Your task to perform on an android device: show emergency info Image 0: 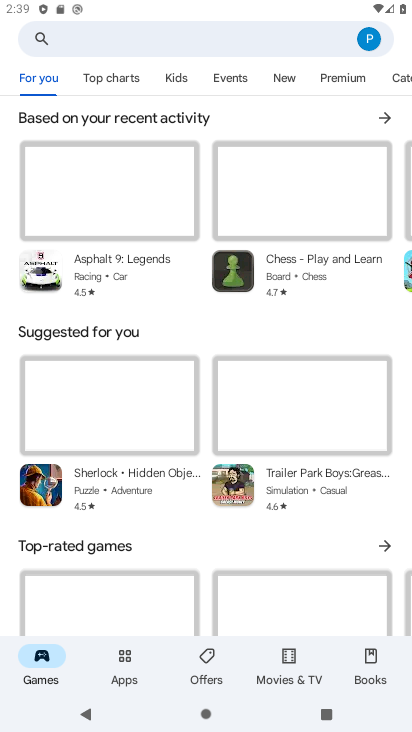
Step 0: press home button
Your task to perform on an android device: show emergency info Image 1: 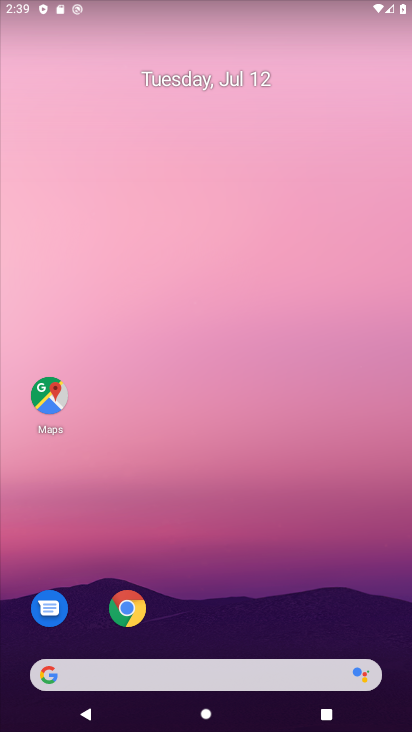
Step 1: drag from (275, 531) to (275, 14)
Your task to perform on an android device: show emergency info Image 2: 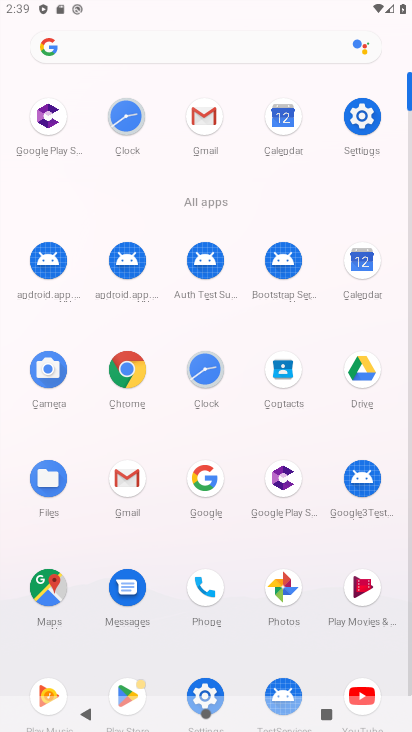
Step 2: click (366, 127)
Your task to perform on an android device: show emergency info Image 3: 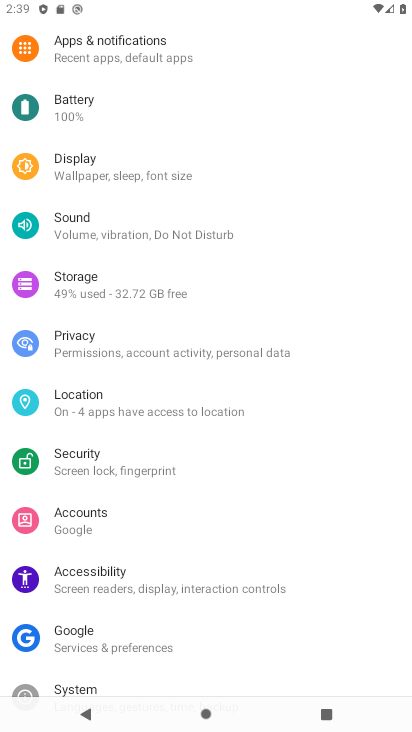
Step 3: drag from (171, 626) to (160, 246)
Your task to perform on an android device: show emergency info Image 4: 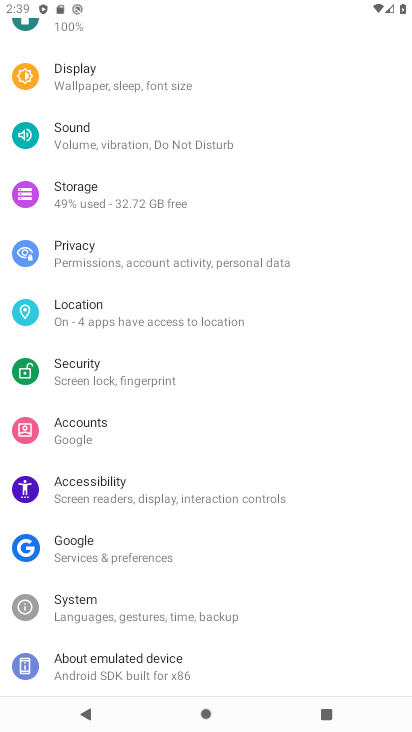
Step 4: click (162, 670)
Your task to perform on an android device: show emergency info Image 5: 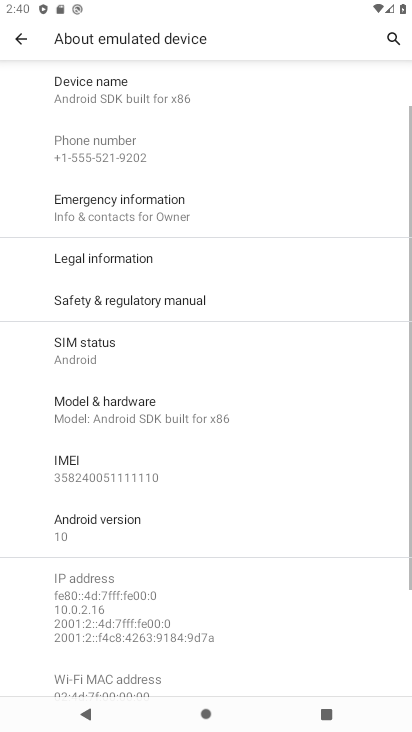
Step 5: click (142, 215)
Your task to perform on an android device: show emergency info Image 6: 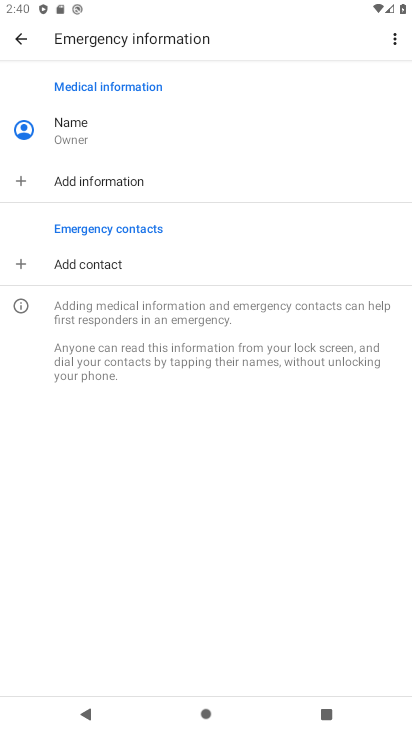
Step 6: task complete